Your task to perform on an android device: Open settings on Google Maps Image 0: 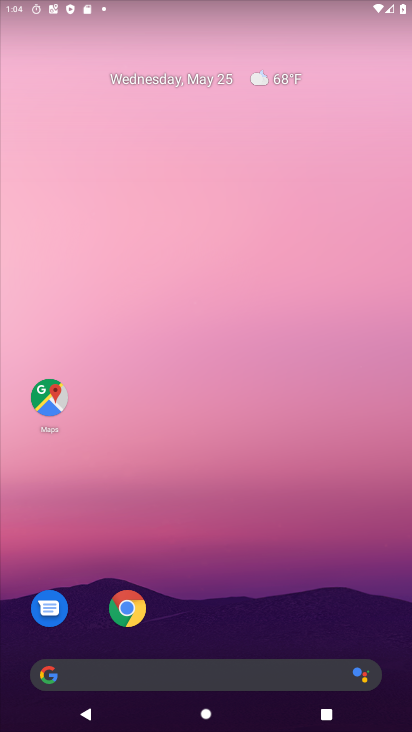
Step 0: drag from (201, 644) to (234, 66)
Your task to perform on an android device: Open settings on Google Maps Image 1: 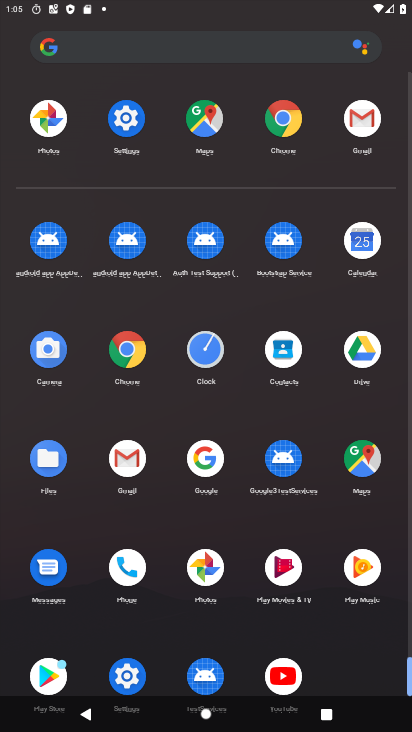
Step 1: click (131, 140)
Your task to perform on an android device: Open settings on Google Maps Image 2: 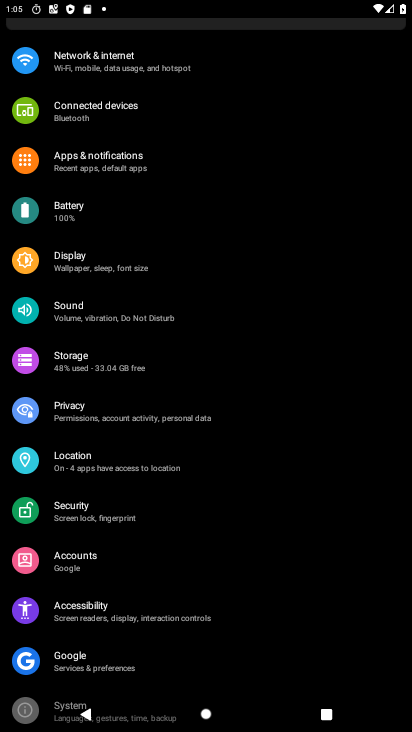
Step 2: press home button
Your task to perform on an android device: Open settings on Google Maps Image 3: 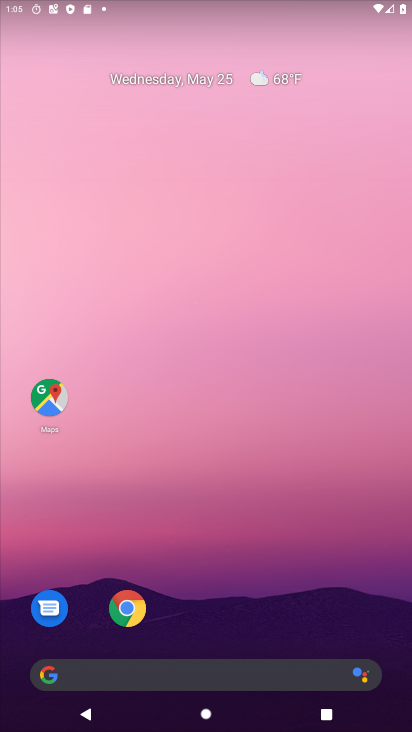
Step 3: click (53, 413)
Your task to perform on an android device: Open settings on Google Maps Image 4: 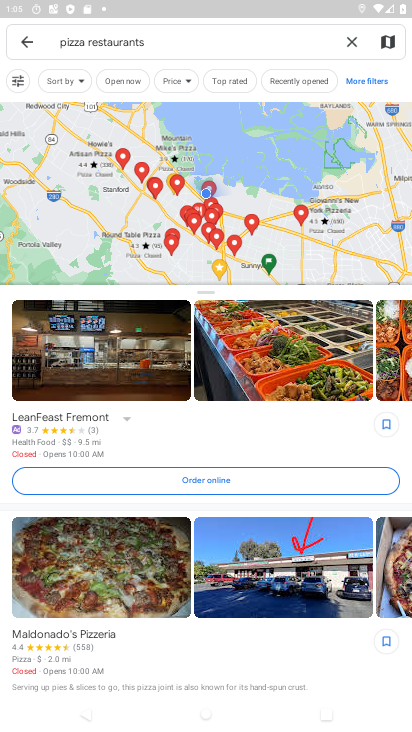
Step 4: click (28, 45)
Your task to perform on an android device: Open settings on Google Maps Image 5: 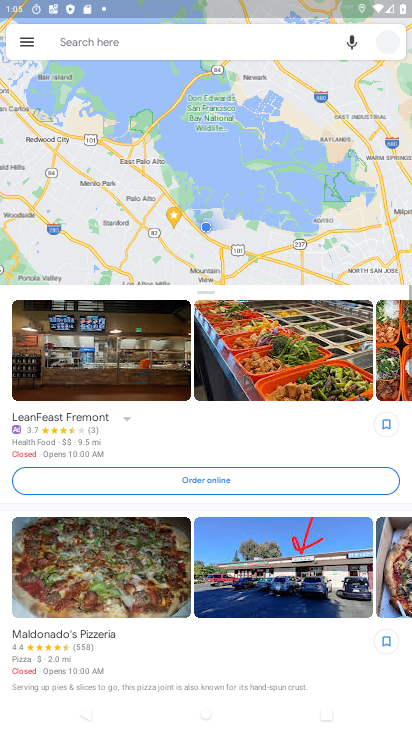
Step 5: click (28, 45)
Your task to perform on an android device: Open settings on Google Maps Image 6: 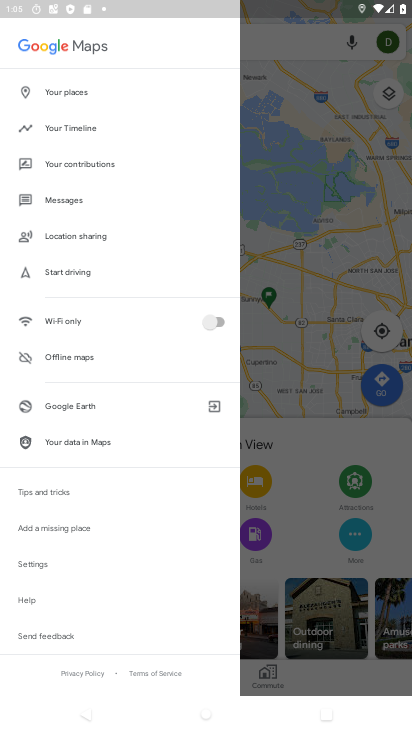
Step 6: click (58, 563)
Your task to perform on an android device: Open settings on Google Maps Image 7: 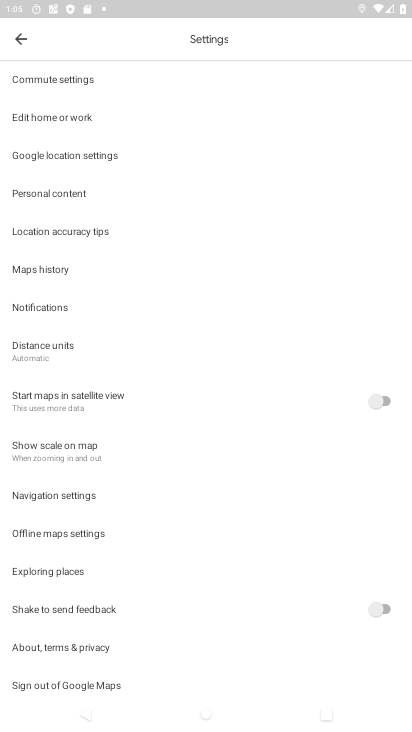
Step 7: task complete